Your task to perform on an android device: Is it going to rain today? Image 0: 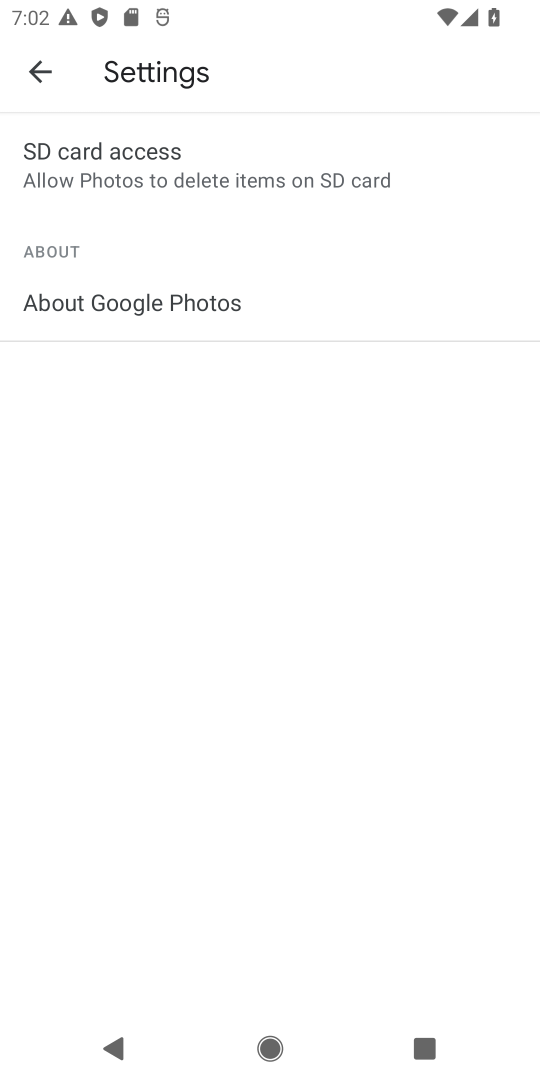
Step 0: press home button
Your task to perform on an android device: Is it going to rain today? Image 1: 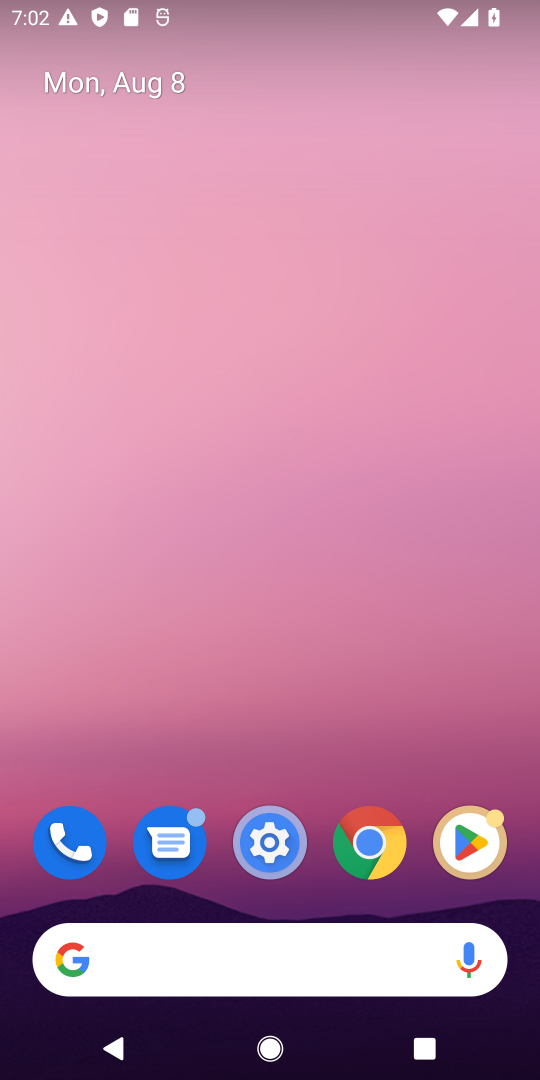
Step 1: click (244, 963)
Your task to perform on an android device: Is it going to rain today? Image 2: 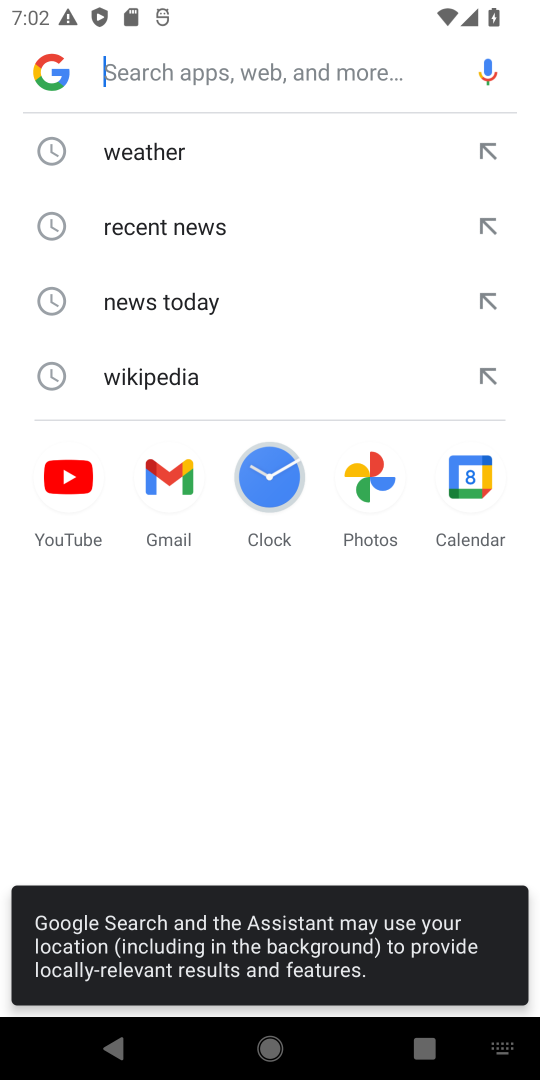
Step 2: click (239, 147)
Your task to perform on an android device: Is it going to rain today? Image 3: 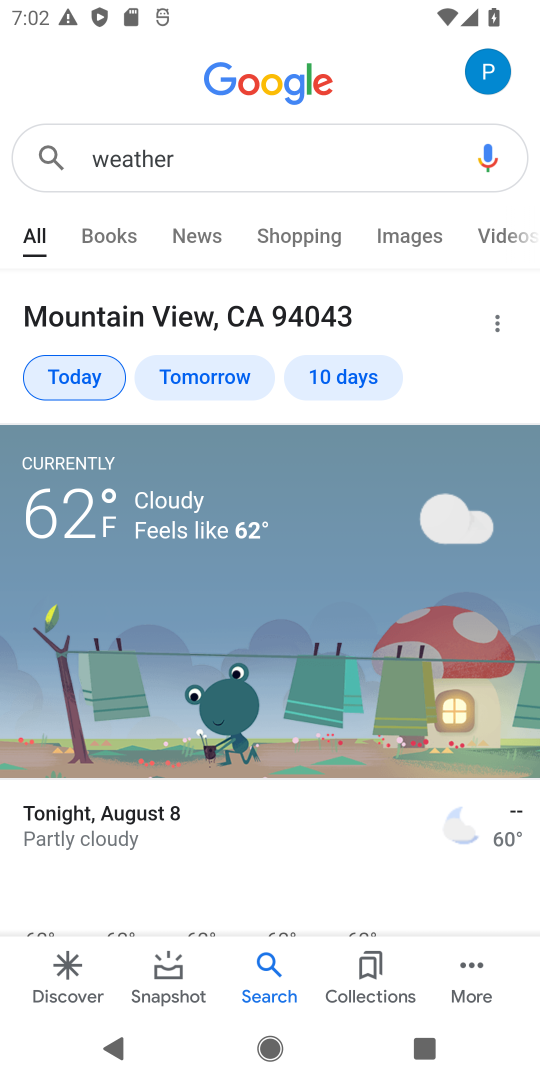
Step 3: click (85, 373)
Your task to perform on an android device: Is it going to rain today? Image 4: 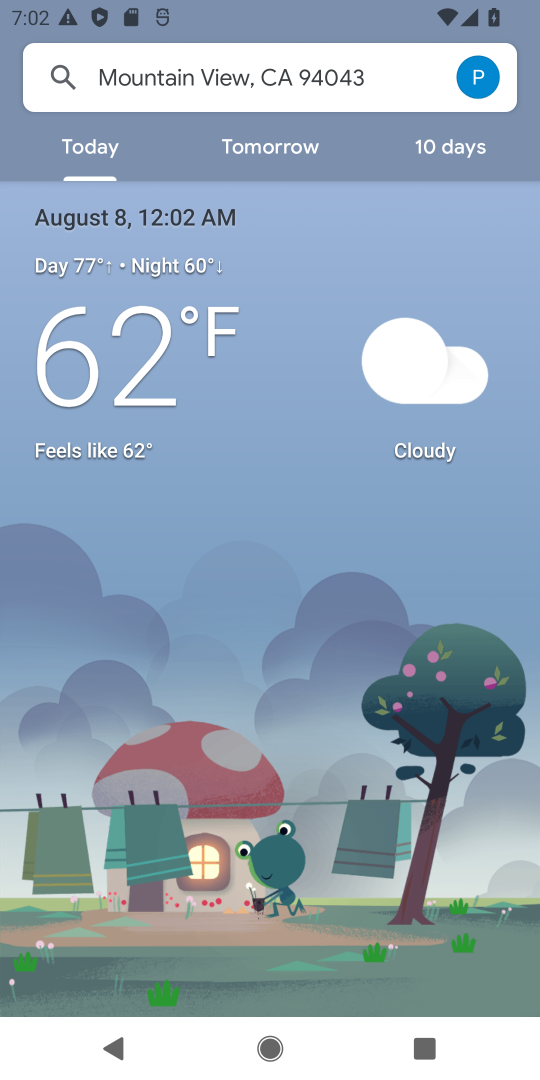
Step 4: task complete